Your task to perform on an android device: see sites visited before in the chrome app Image 0: 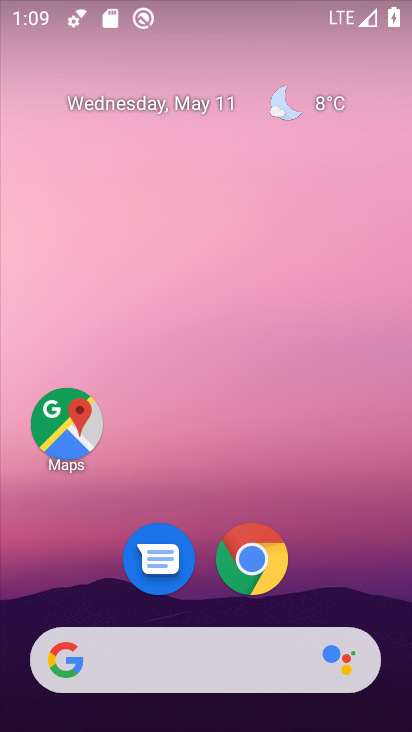
Step 0: click (253, 560)
Your task to perform on an android device: see sites visited before in the chrome app Image 1: 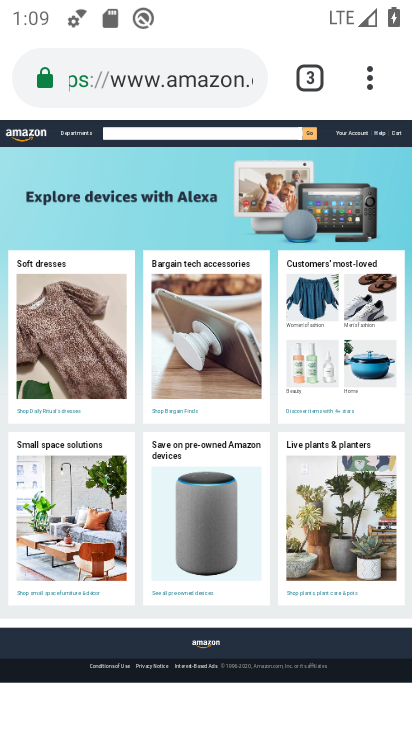
Step 1: click (370, 86)
Your task to perform on an android device: see sites visited before in the chrome app Image 2: 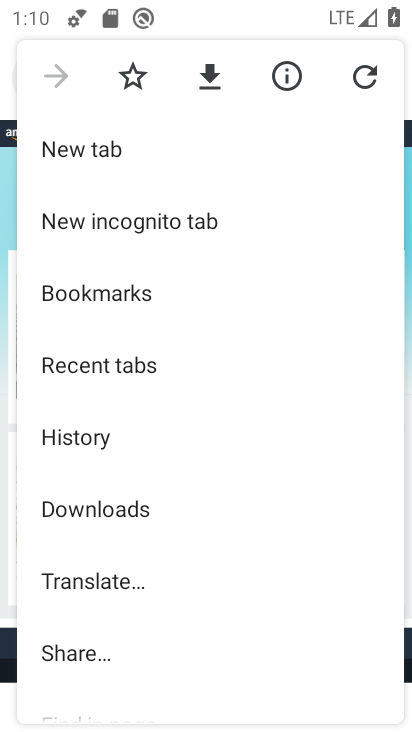
Step 2: click (84, 361)
Your task to perform on an android device: see sites visited before in the chrome app Image 3: 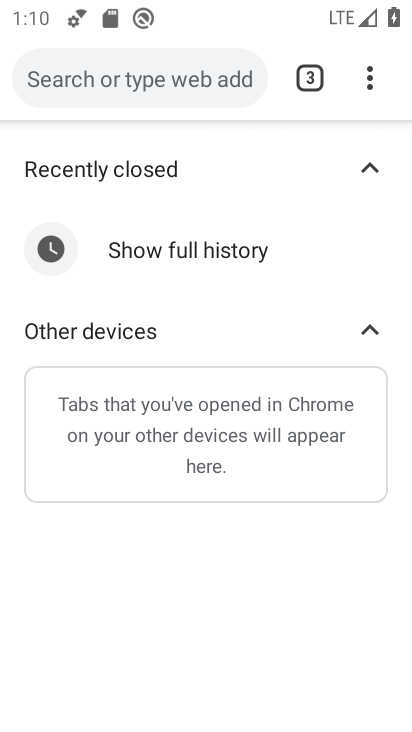
Step 3: click (172, 246)
Your task to perform on an android device: see sites visited before in the chrome app Image 4: 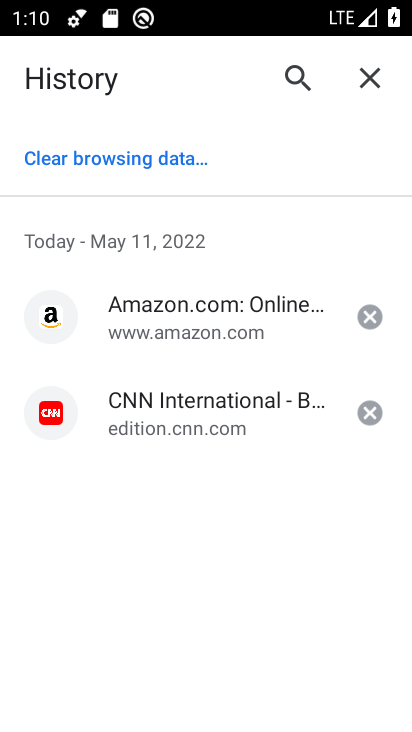
Step 4: task complete